Your task to perform on an android device: Go to Amazon Image 0: 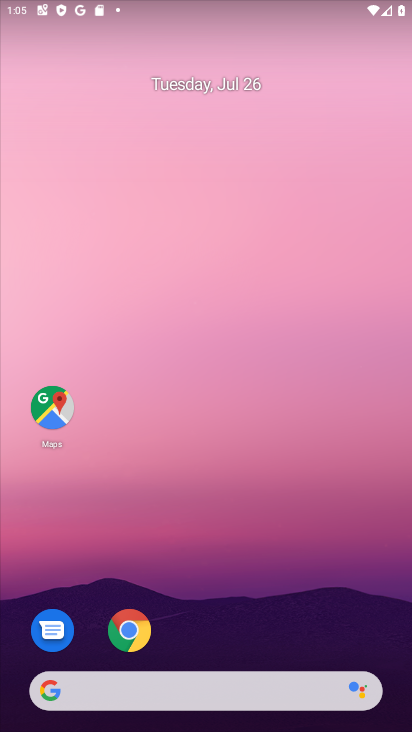
Step 0: click (130, 633)
Your task to perform on an android device: Go to Amazon Image 1: 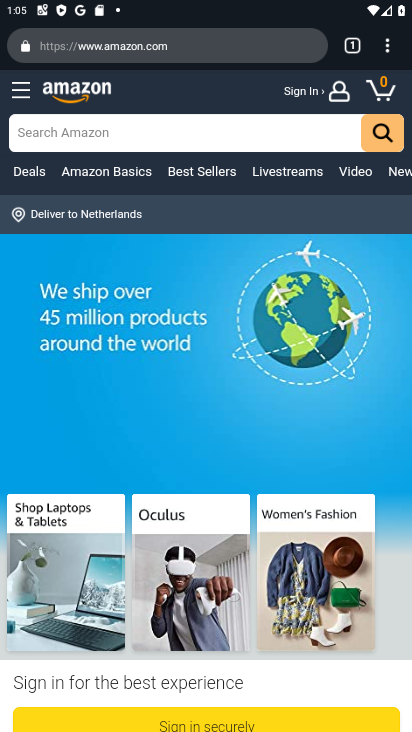
Step 1: task complete